Your task to perform on an android device: Open Google Chrome and open the bookmarks view Image 0: 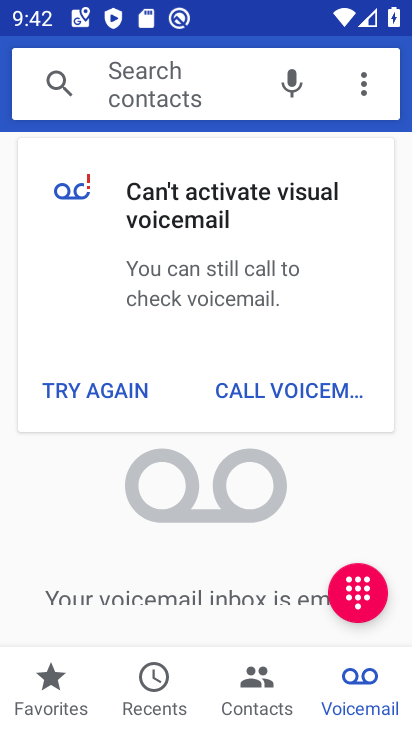
Step 0: press home button
Your task to perform on an android device: Open Google Chrome and open the bookmarks view Image 1: 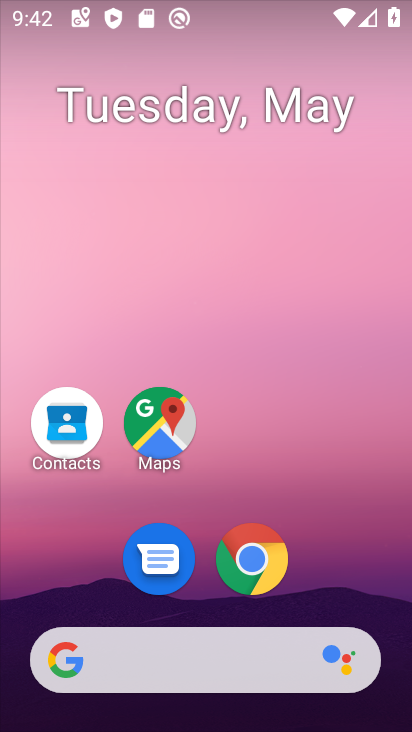
Step 1: click (262, 557)
Your task to perform on an android device: Open Google Chrome and open the bookmarks view Image 2: 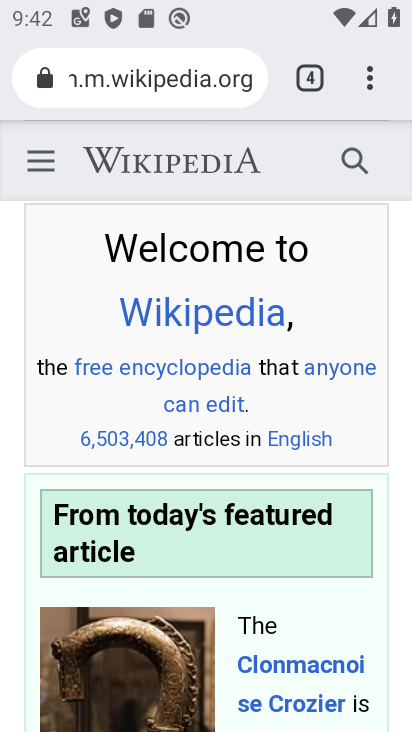
Step 2: click (374, 67)
Your task to perform on an android device: Open Google Chrome and open the bookmarks view Image 3: 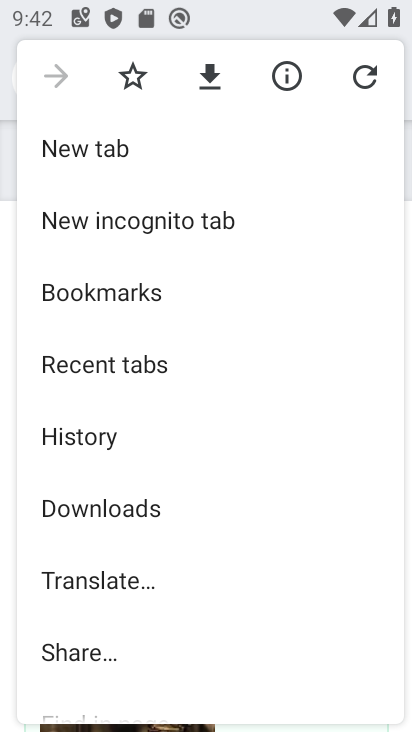
Step 3: click (152, 307)
Your task to perform on an android device: Open Google Chrome and open the bookmarks view Image 4: 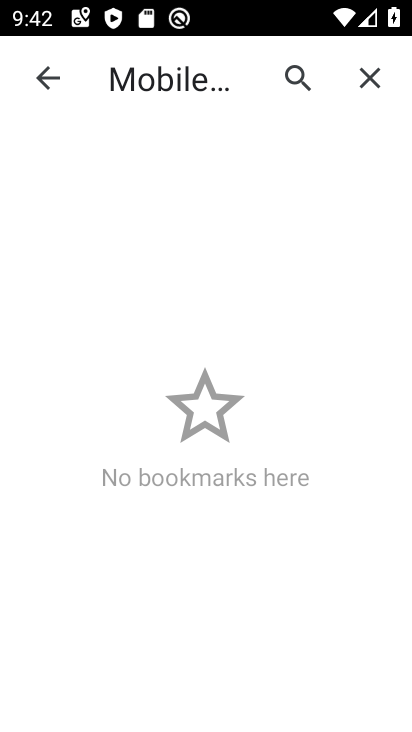
Step 4: task complete